Your task to perform on an android device: Is it going to rain this weekend? Image 0: 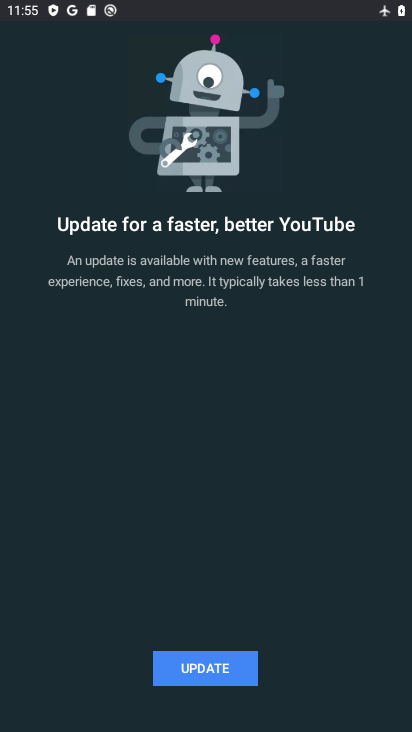
Step 0: press back button
Your task to perform on an android device: Is it going to rain this weekend? Image 1: 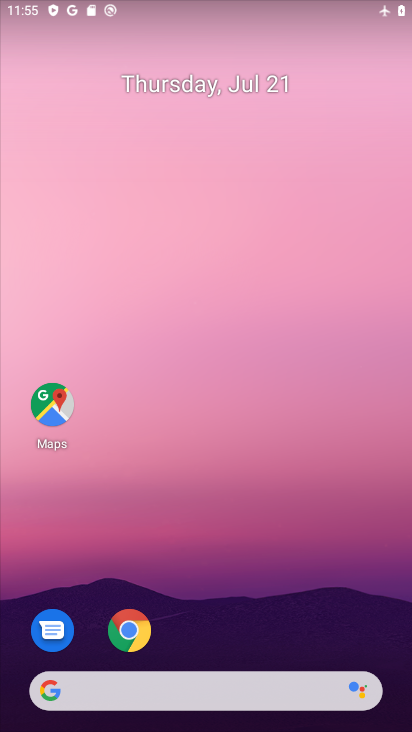
Step 1: drag from (214, 680) to (130, 139)
Your task to perform on an android device: Is it going to rain this weekend? Image 2: 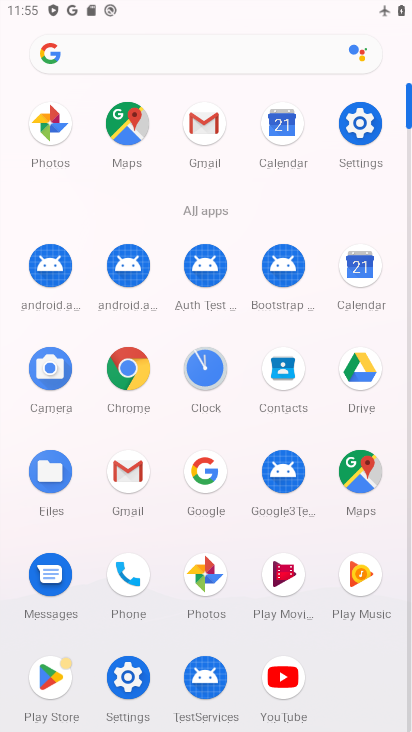
Step 2: click (192, 485)
Your task to perform on an android device: Is it going to rain this weekend? Image 3: 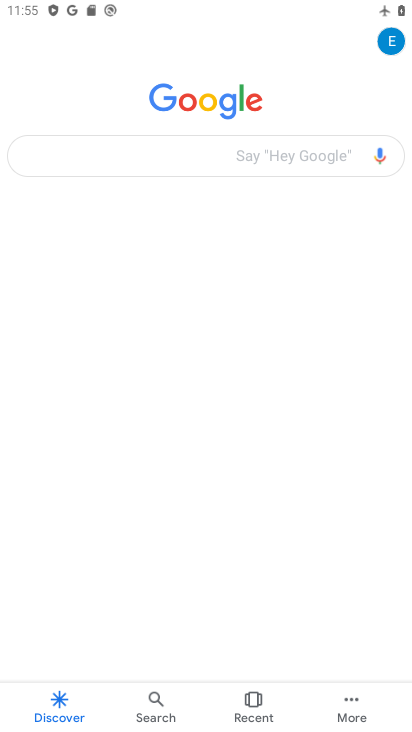
Step 3: click (301, 140)
Your task to perform on an android device: Is it going to rain this weekend? Image 4: 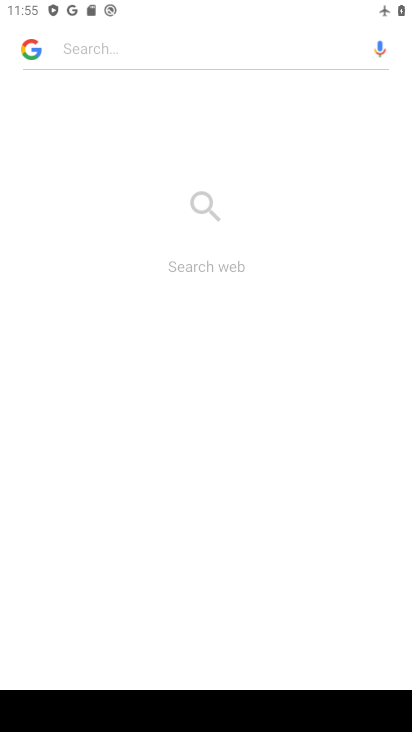
Step 4: task complete